Your task to perform on an android device: add a contact Image 0: 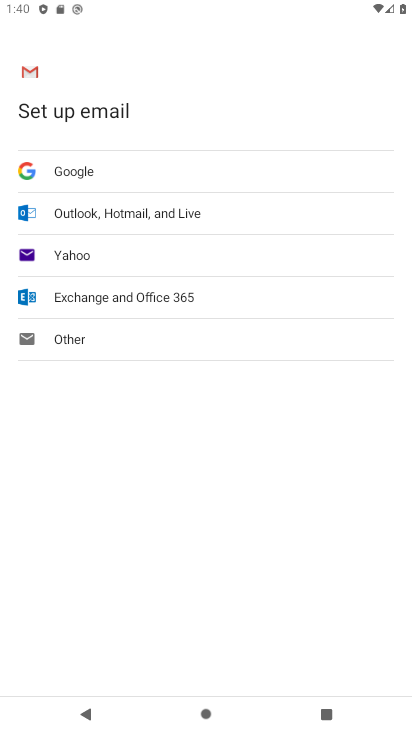
Step 0: press home button
Your task to perform on an android device: add a contact Image 1: 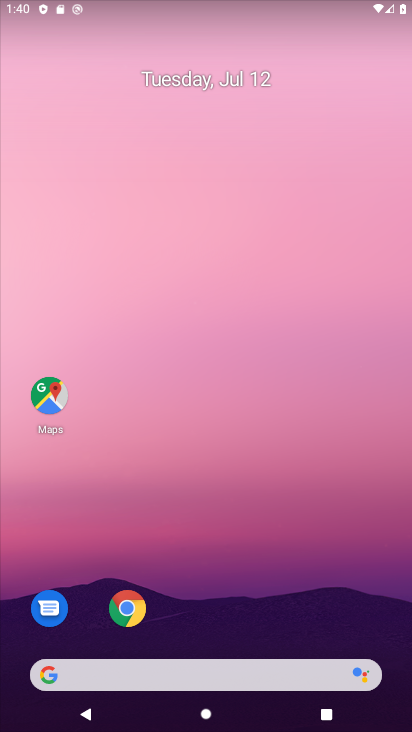
Step 1: drag from (267, 599) to (301, 46)
Your task to perform on an android device: add a contact Image 2: 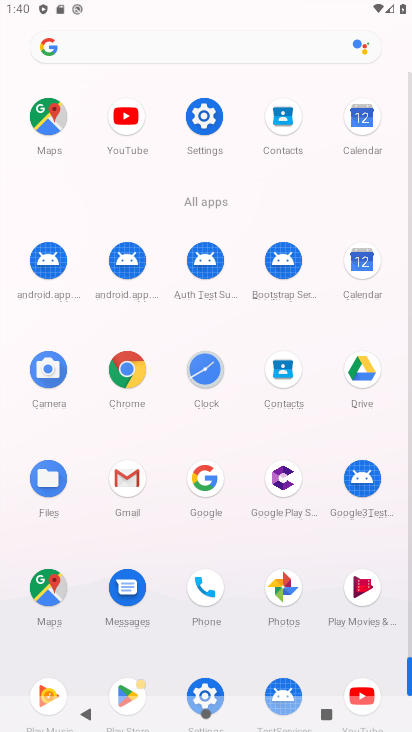
Step 2: click (289, 118)
Your task to perform on an android device: add a contact Image 3: 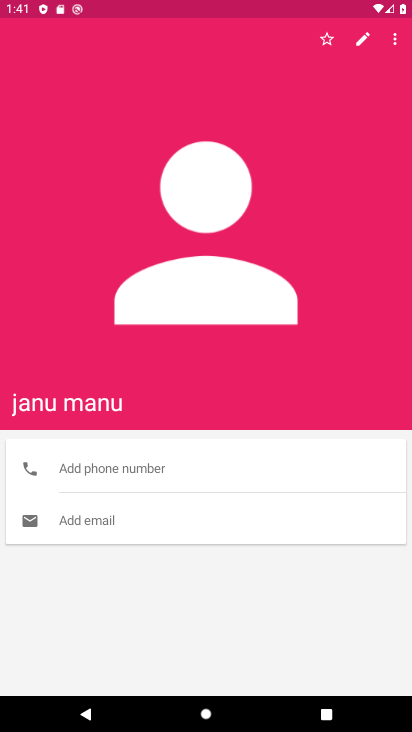
Step 3: press back button
Your task to perform on an android device: add a contact Image 4: 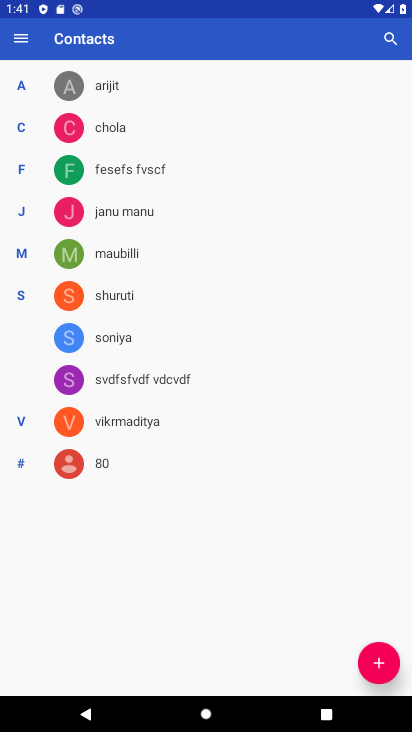
Step 4: click (382, 666)
Your task to perform on an android device: add a contact Image 5: 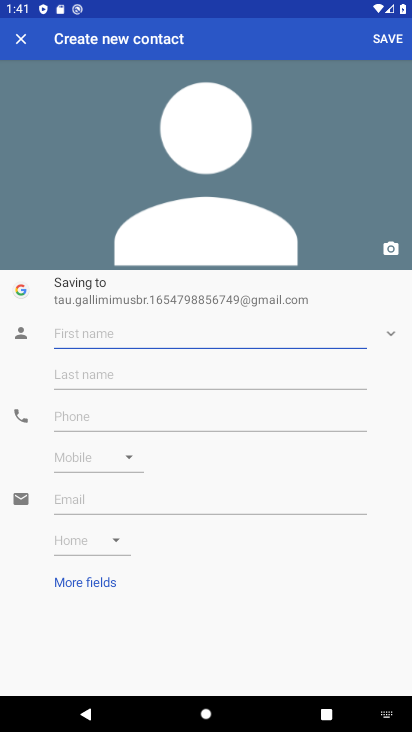
Step 5: type "joru"
Your task to perform on an android device: add a contact Image 6: 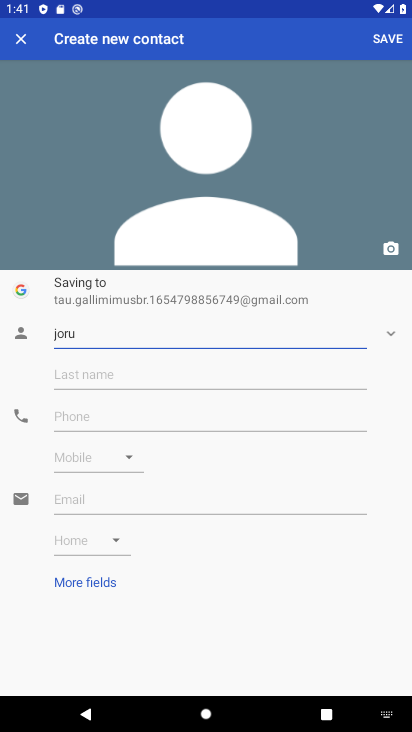
Step 6: click (378, 38)
Your task to perform on an android device: add a contact Image 7: 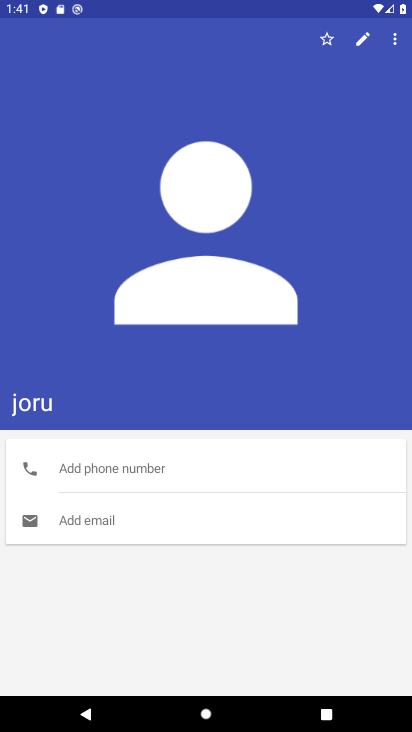
Step 7: task complete